Your task to perform on an android device: stop showing notifications on the lock screen Image 0: 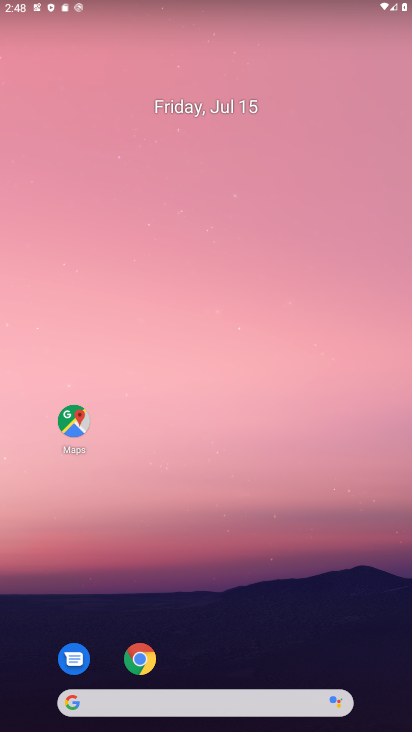
Step 0: drag from (210, 668) to (187, 291)
Your task to perform on an android device: stop showing notifications on the lock screen Image 1: 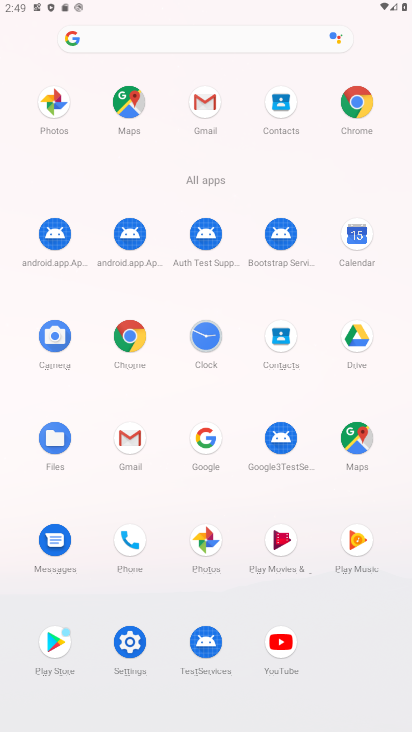
Step 1: click (125, 639)
Your task to perform on an android device: stop showing notifications on the lock screen Image 2: 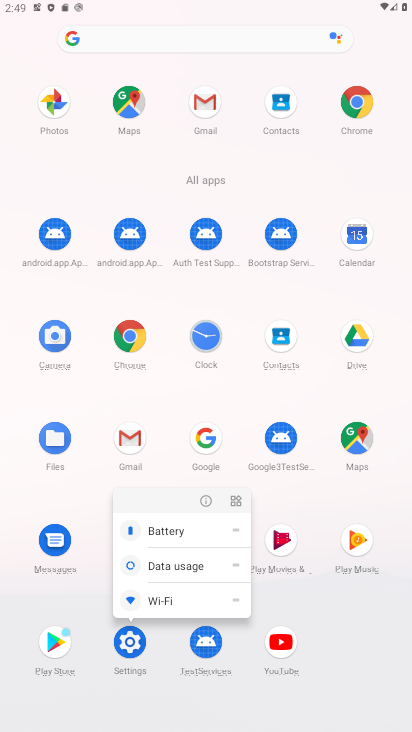
Step 2: click (122, 643)
Your task to perform on an android device: stop showing notifications on the lock screen Image 3: 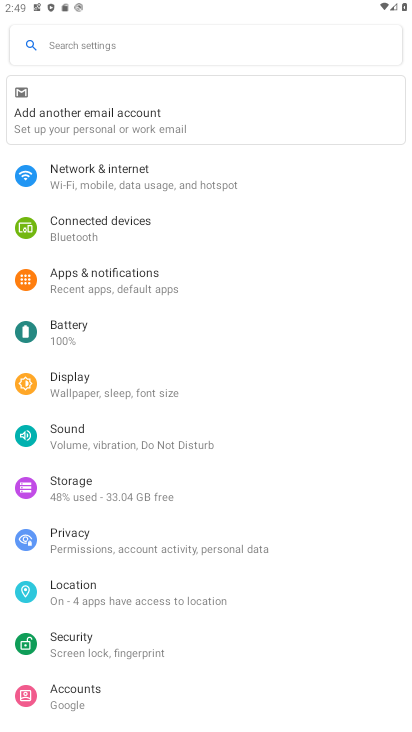
Step 3: click (72, 523)
Your task to perform on an android device: stop showing notifications on the lock screen Image 4: 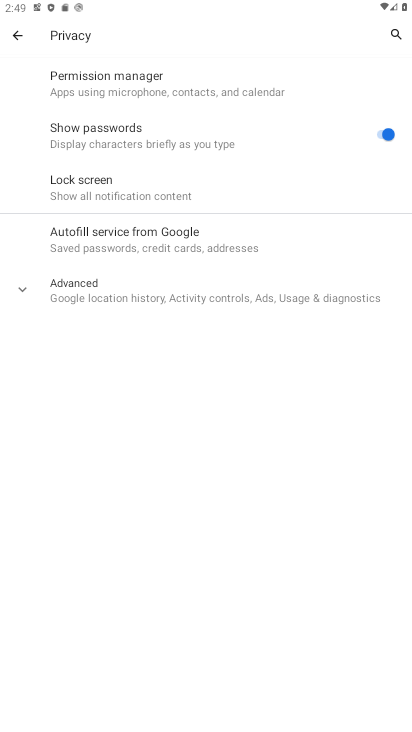
Step 4: click (73, 275)
Your task to perform on an android device: stop showing notifications on the lock screen Image 5: 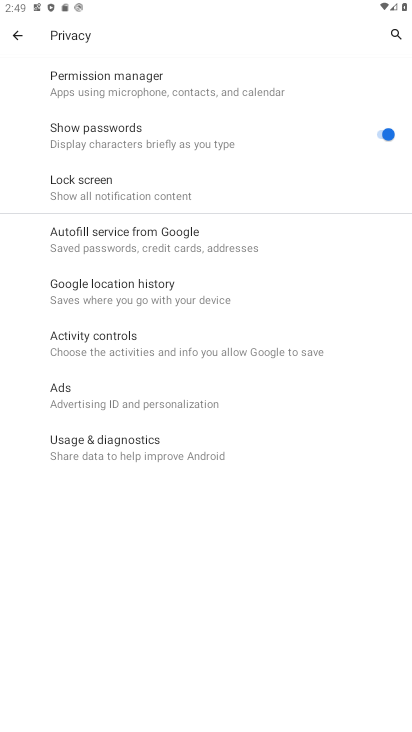
Step 5: click (83, 195)
Your task to perform on an android device: stop showing notifications on the lock screen Image 6: 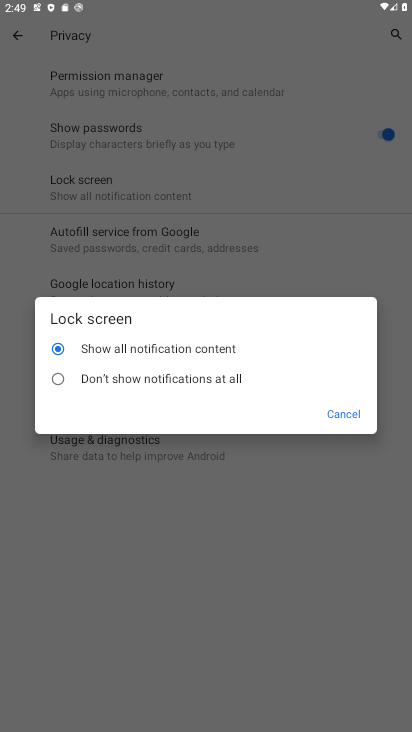
Step 6: click (115, 380)
Your task to perform on an android device: stop showing notifications on the lock screen Image 7: 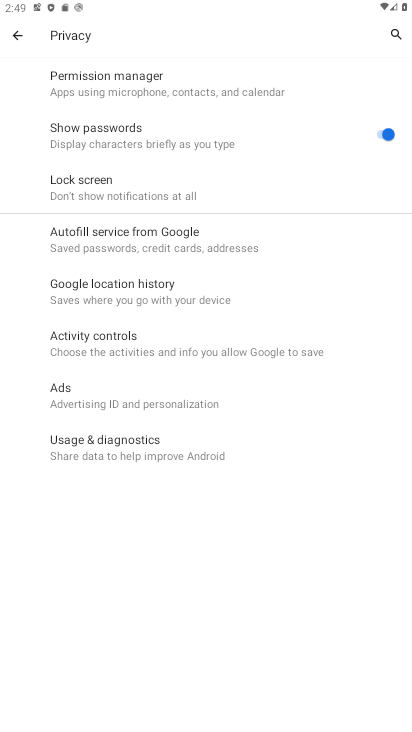
Step 7: task complete